Your task to perform on an android device: open app "LinkedIn" (install if not already installed) Image 0: 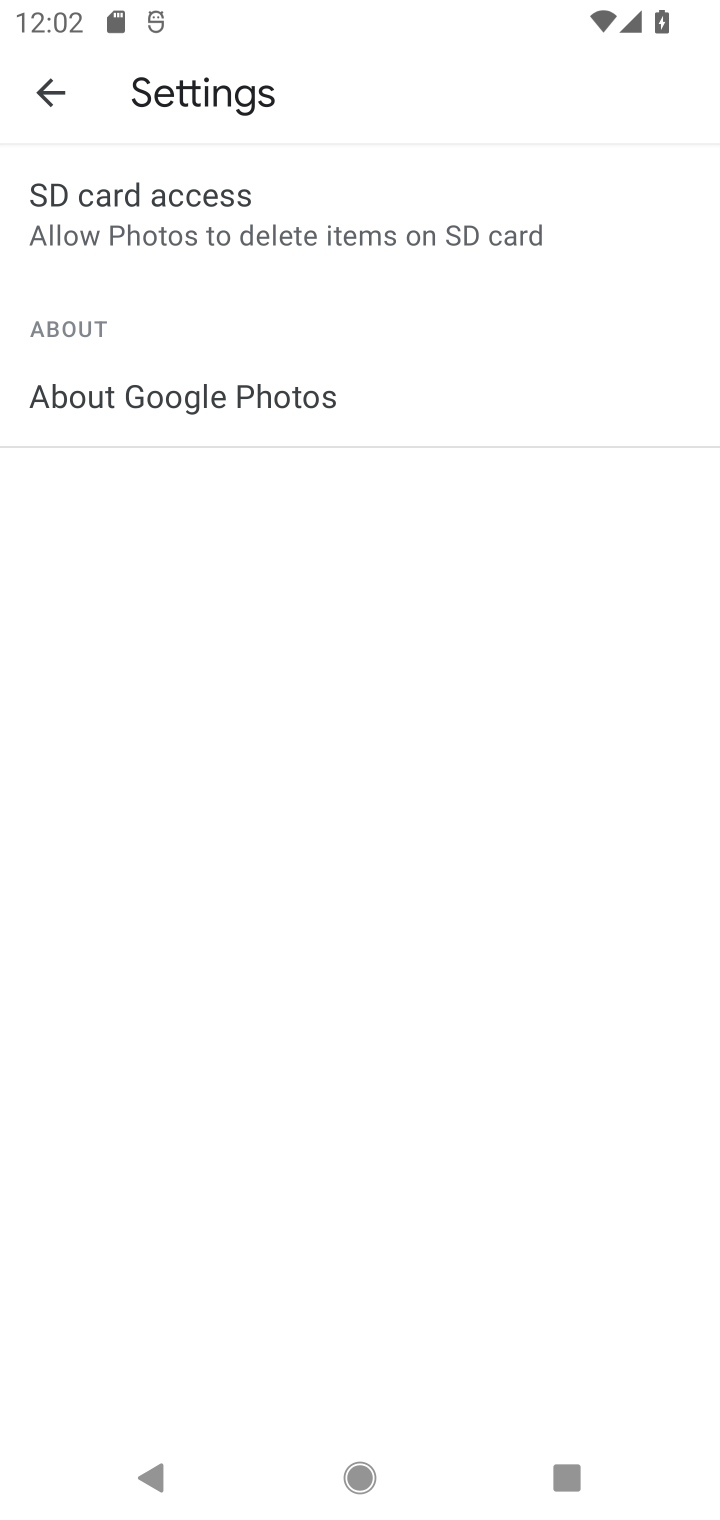
Step 0: press home button
Your task to perform on an android device: open app "LinkedIn" (install if not already installed) Image 1: 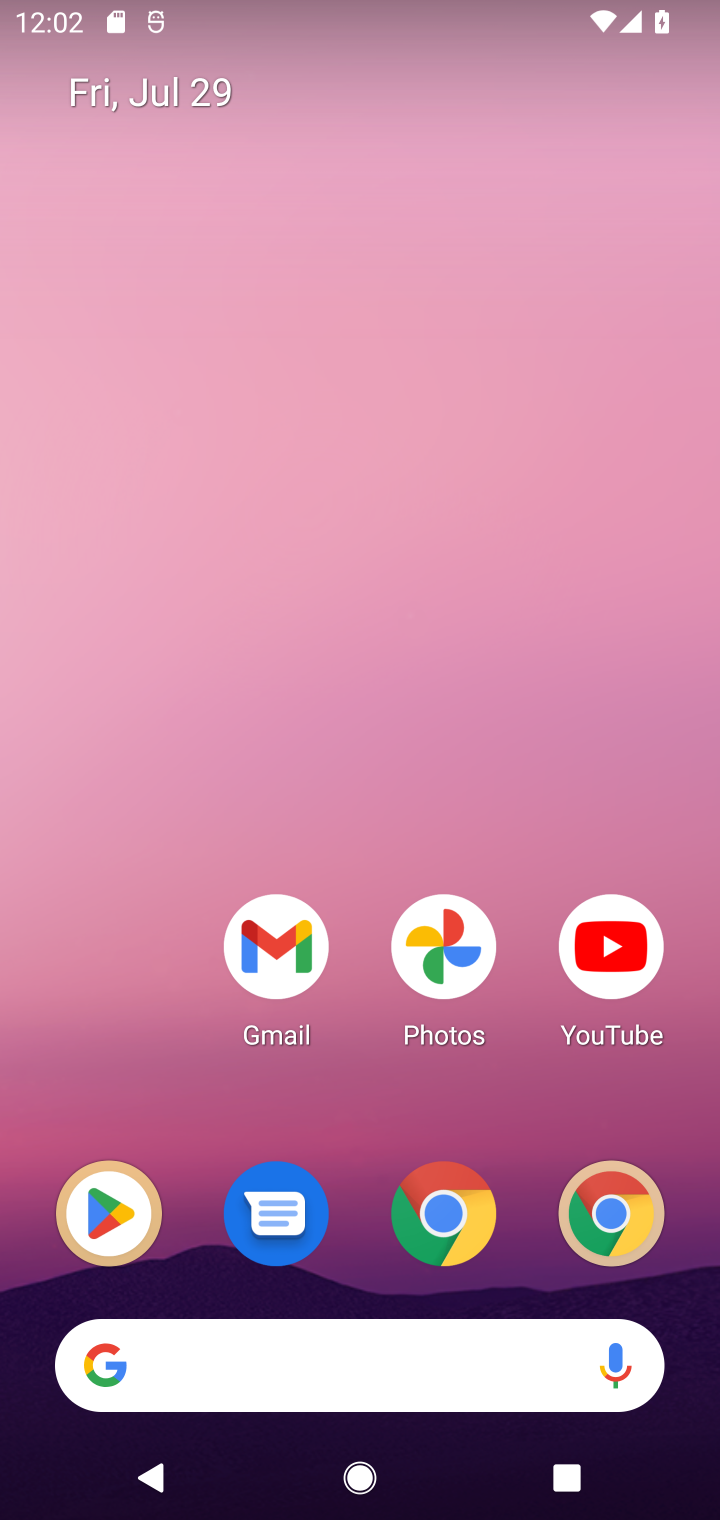
Step 1: press home button
Your task to perform on an android device: open app "LinkedIn" (install if not already installed) Image 2: 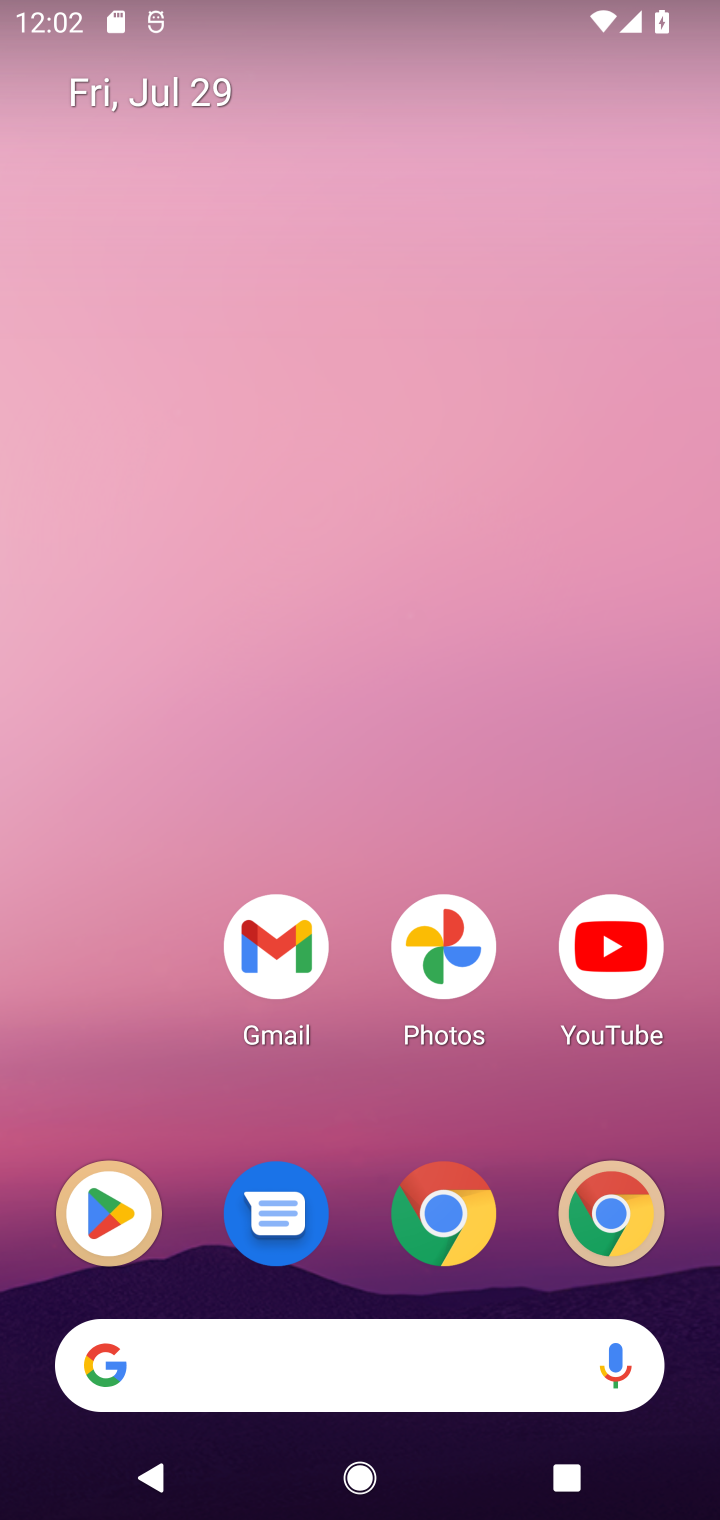
Step 2: press home button
Your task to perform on an android device: open app "LinkedIn" (install if not already installed) Image 3: 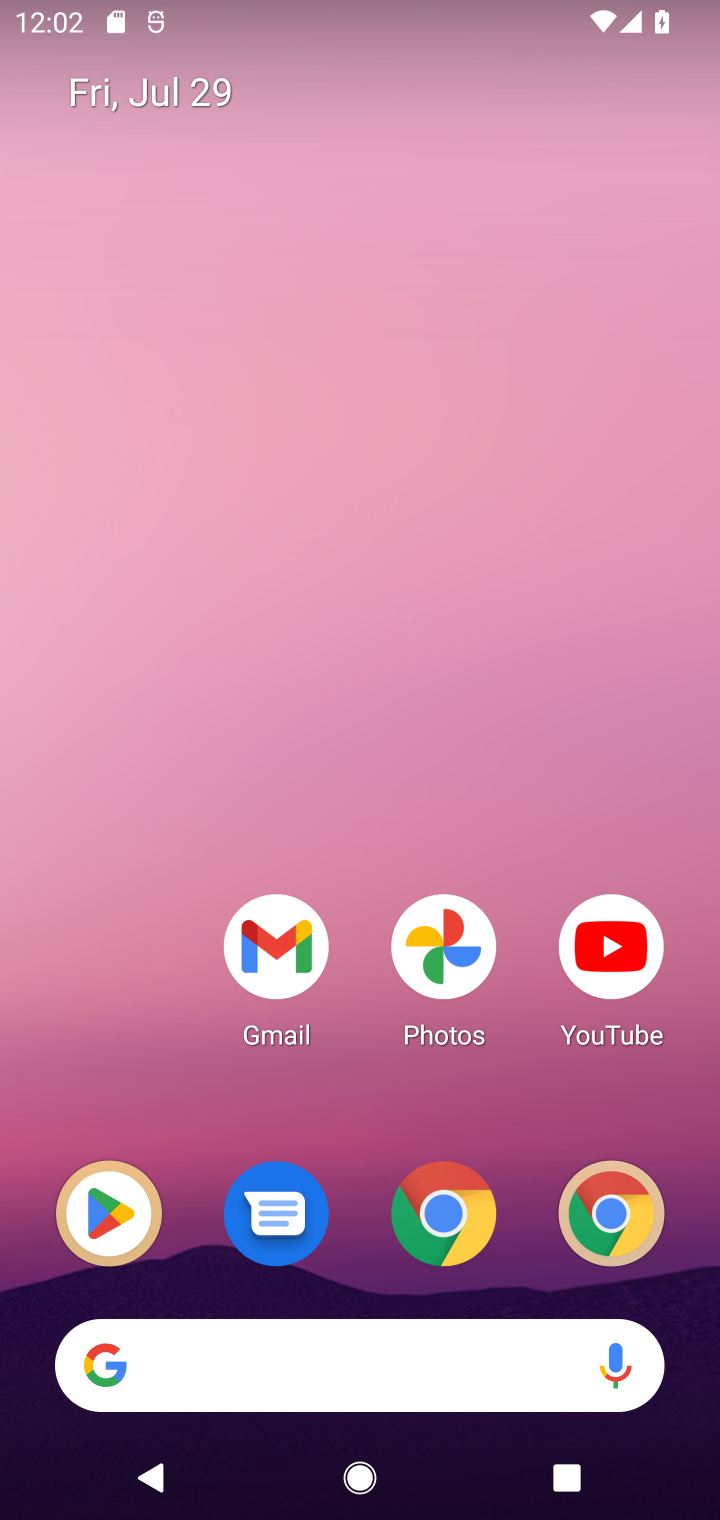
Step 3: drag from (360, 996) to (352, 801)
Your task to perform on an android device: open app "LinkedIn" (install if not already installed) Image 4: 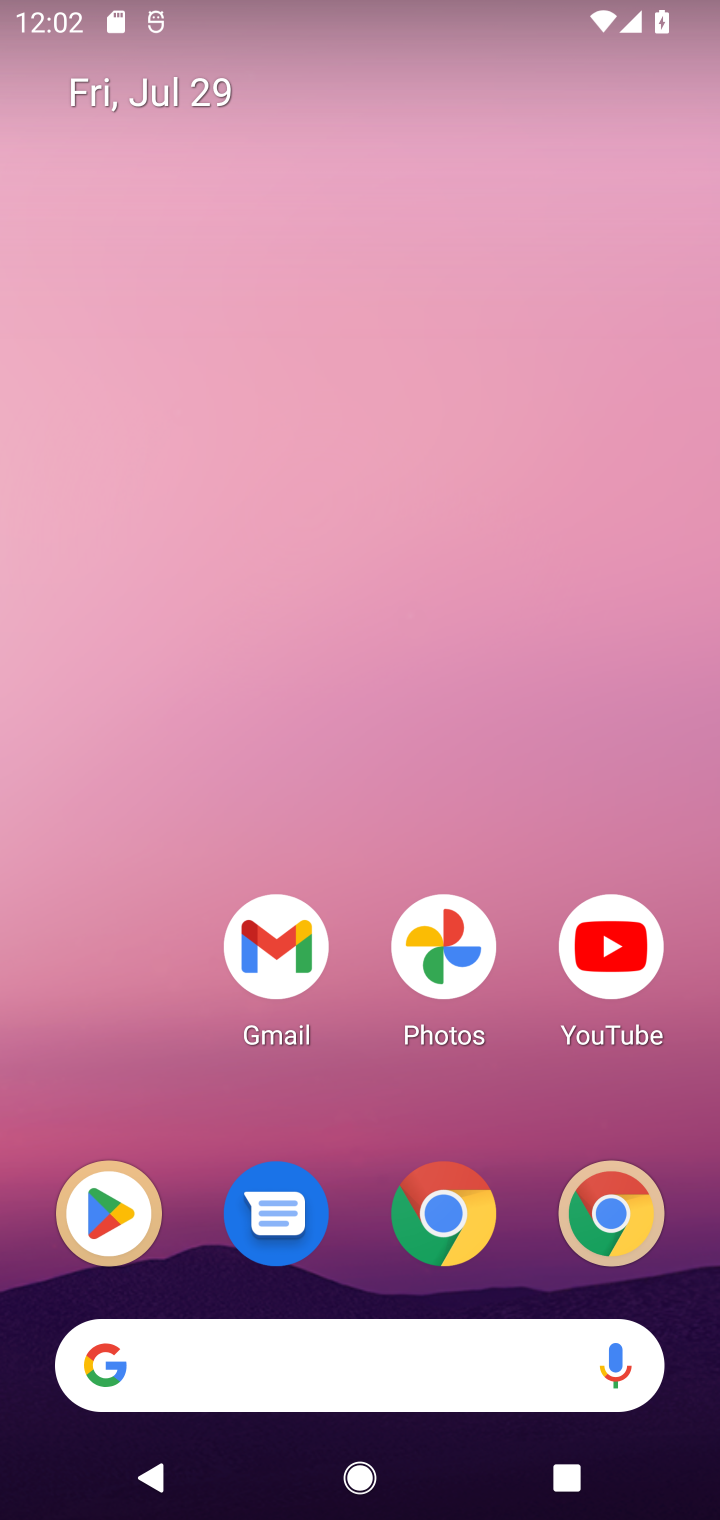
Step 4: drag from (425, 1453) to (345, 35)
Your task to perform on an android device: open app "LinkedIn" (install if not already installed) Image 5: 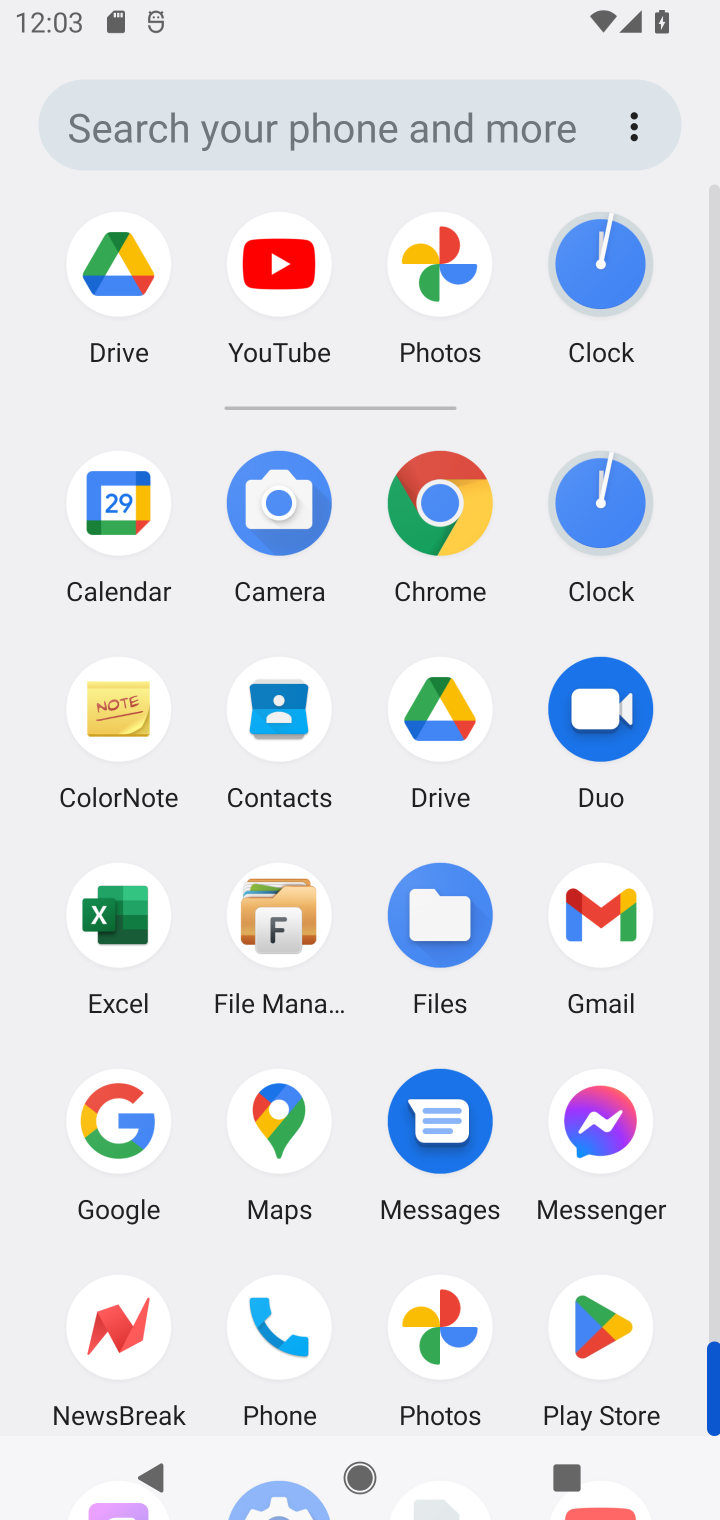
Step 5: click (610, 1324)
Your task to perform on an android device: open app "LinkedIn" (install if not already installed) Image 6: 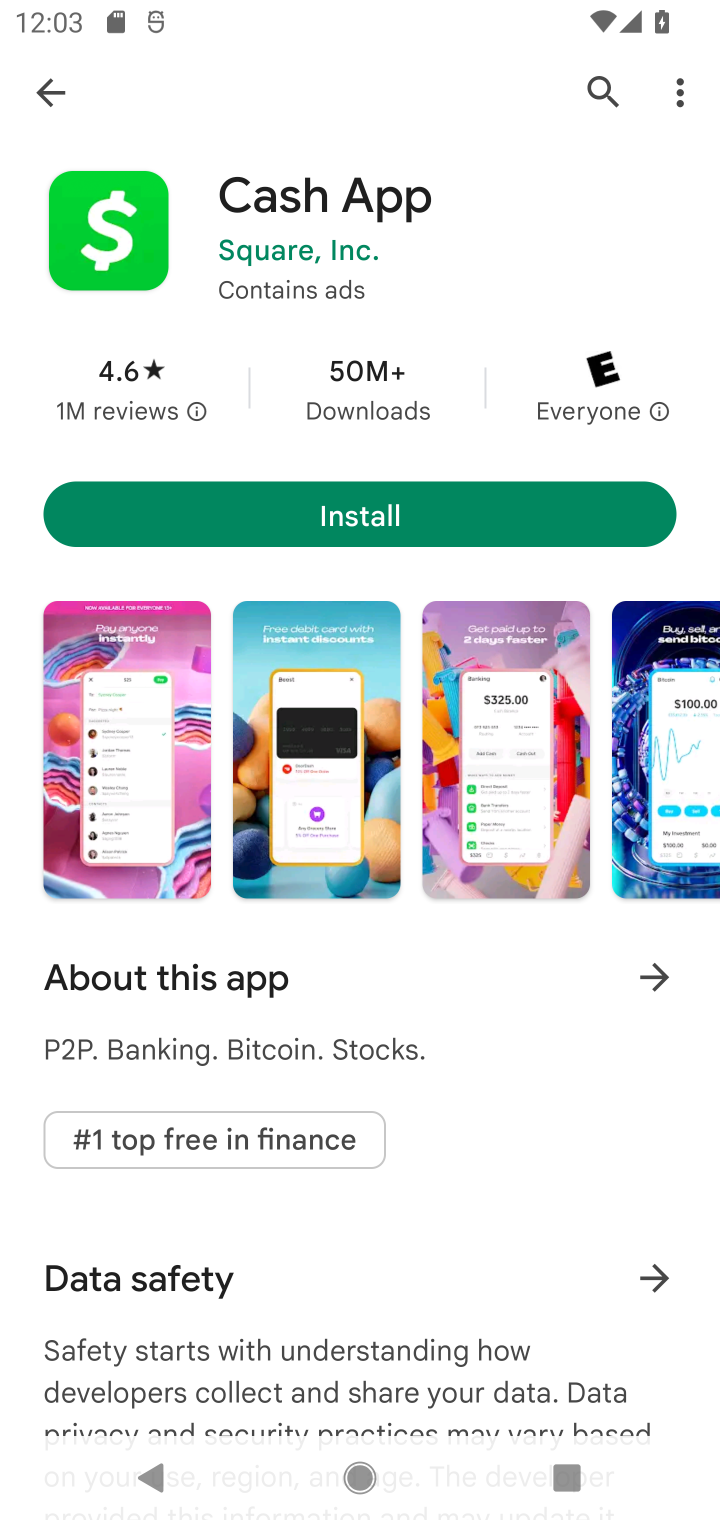
Step 6: click (581, 87)
Your task to perform on an android device: open app "LinkedIn" (install if not already installed) Image 7: 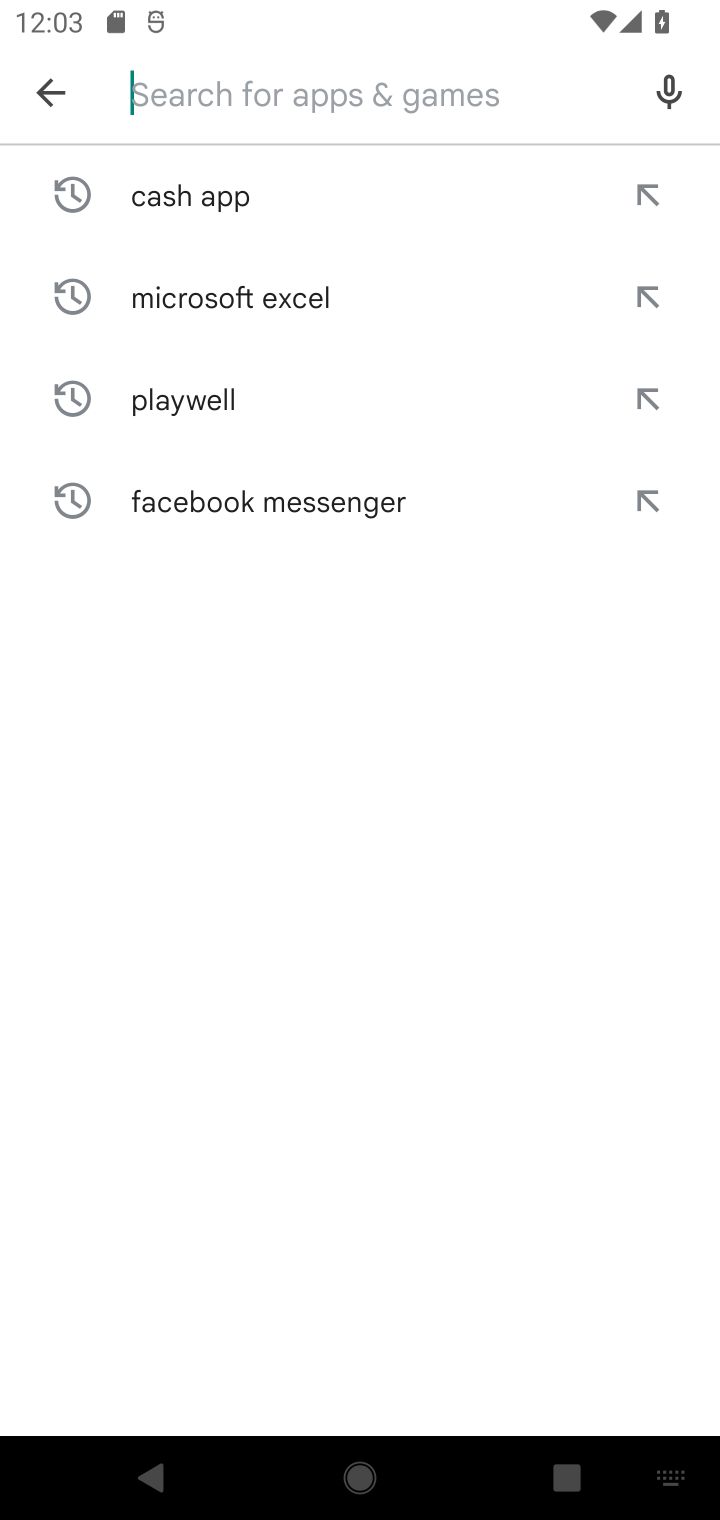
Step 7: type "LinkedIn"
Your task to perform on an android device: open app "LinkedIn" (install if not already installed) Image 8: 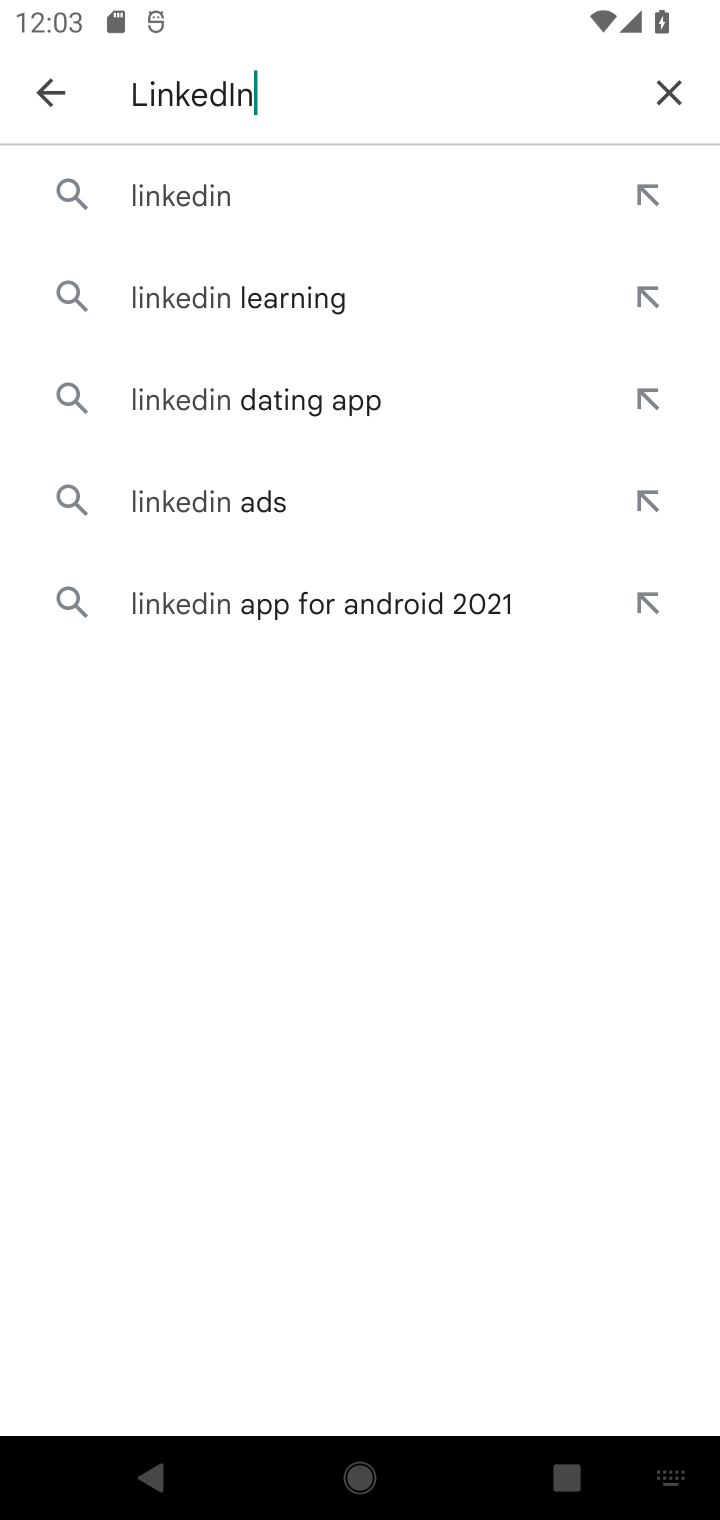
Step 8: click (184, 197)
Your task to perform on an android device: open app "LinkedIn" (install if not already installed) Image 9: 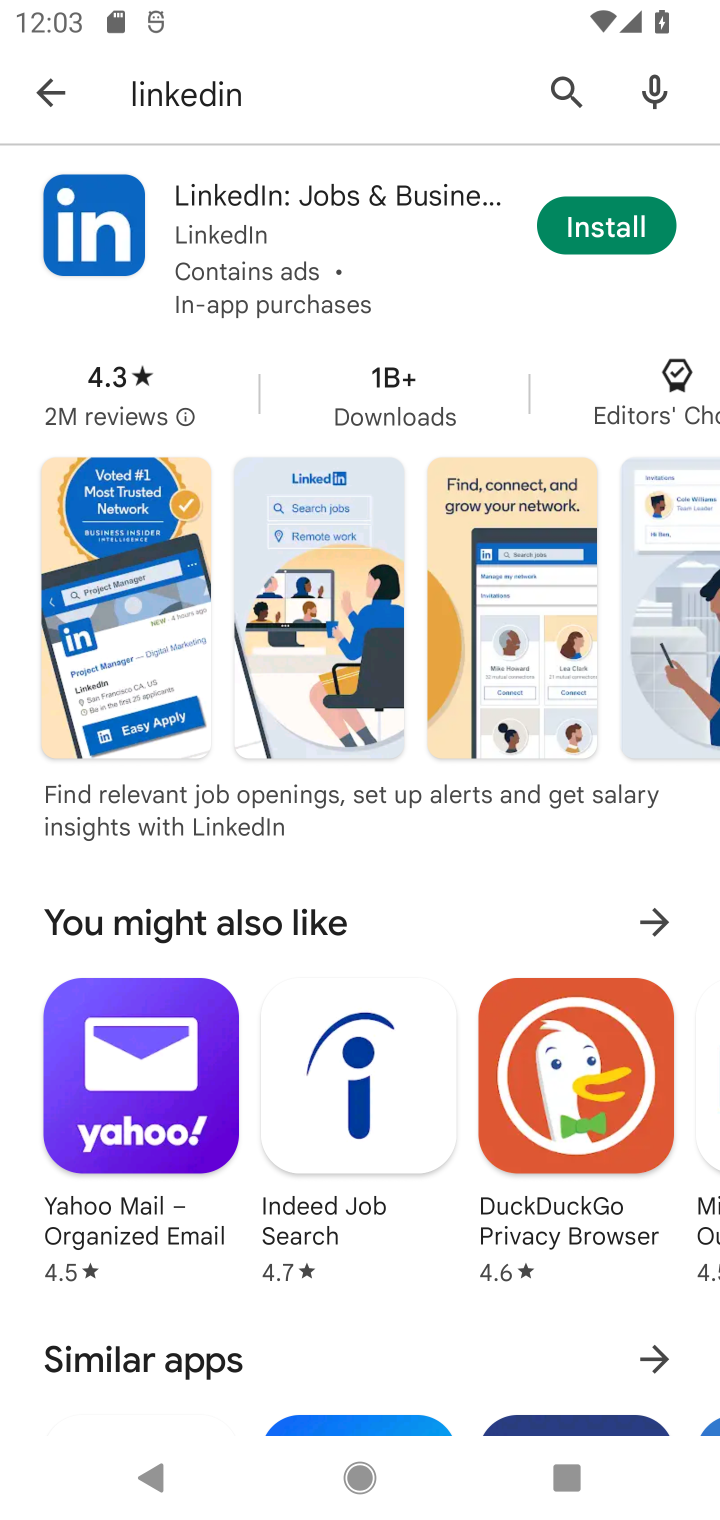
Step 9: click (613, 226)
Your task to perform on an android device: open app "LinkedIn" (install if not already installed) Image 10: 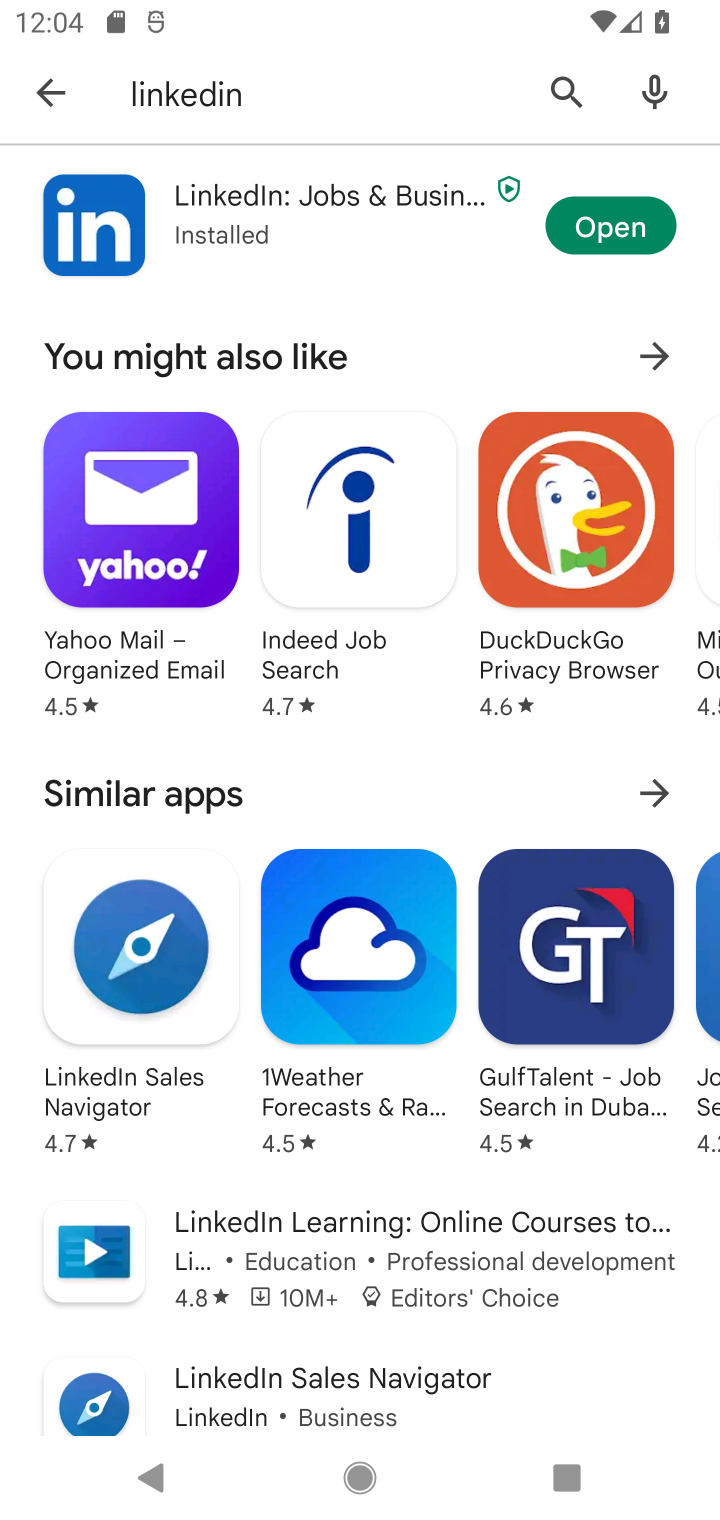
Step 10: click (618, 221)
Your task to perform on an android device: open app "LinkedIn" (install if not already installed) Image 11: 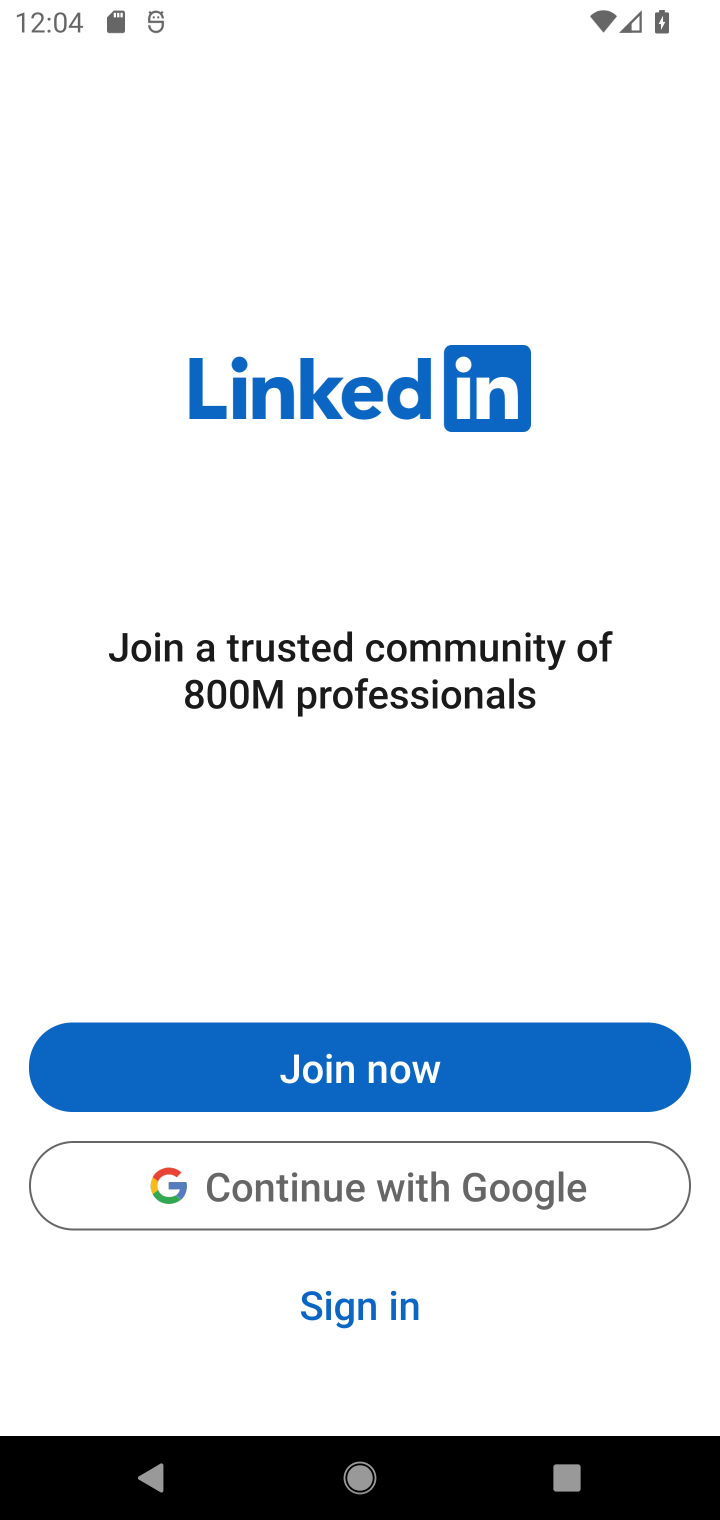
Step 11: task complete